Your task to perform on an android device: Show me recent news Image 0: 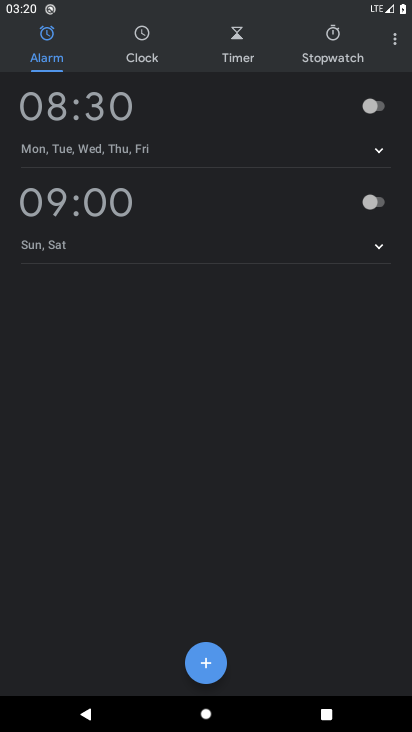
Step 0: press home button
Your task to perform on an android device: Show me recent news Image 1: 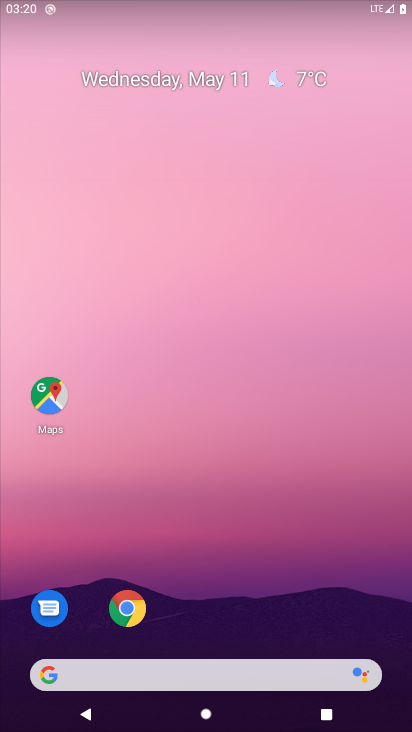
Step 1: task complete